Your task to perform on an android device: toggle sleep mode Image 0: 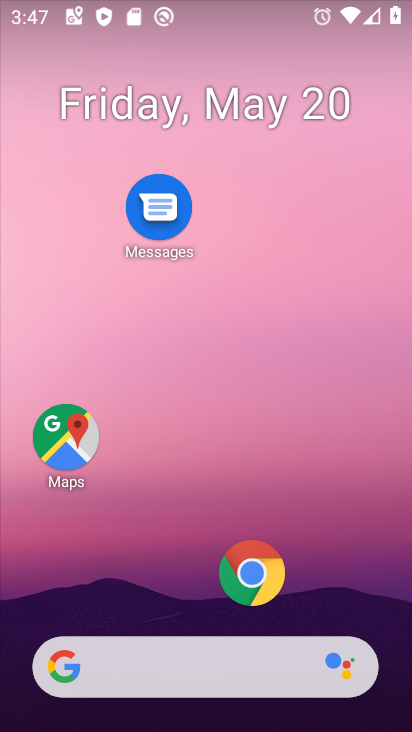
Step 0: drag from (194, 625) to (186, 5)
Your task to perform on an android device: toggle sleep mode Image 1: 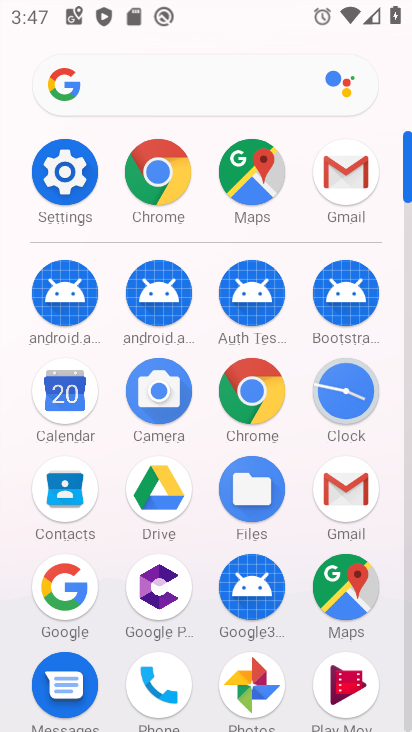
Step 1: click (45, 203)
Your task to perform on an android device: toggle sleep mode Image 2: 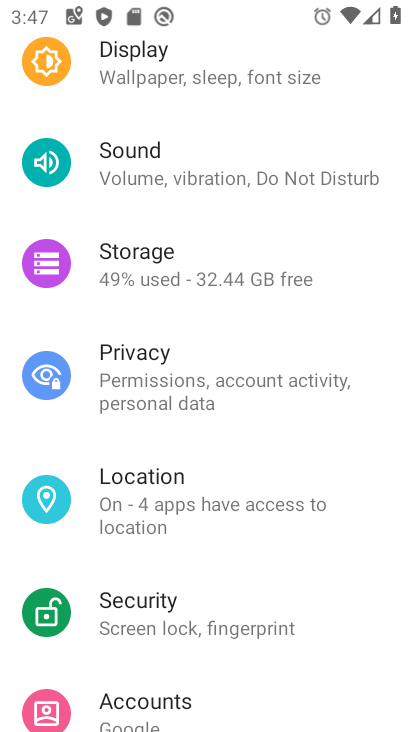
Step 2: click (135, 76)
Your task to perform on an android device: toggle sleep mode Image 3: 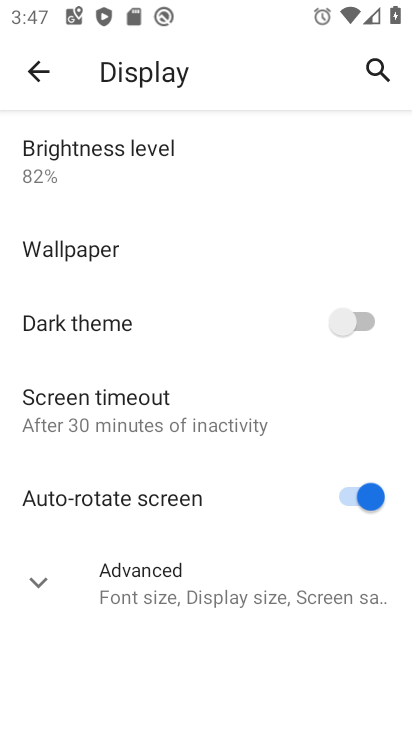
Step 3: task complete